Your task to perform on an android device: Open Maps and search for coffee Image 0: 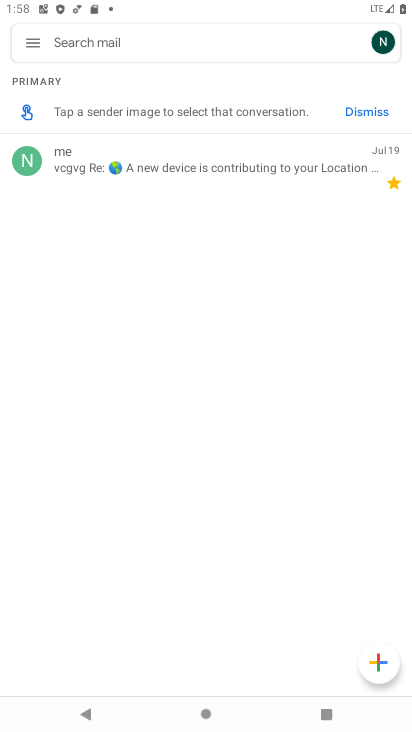
Step 0: press home button
Your task to perform on an android device: Open Maps and search for coffee Image 1: 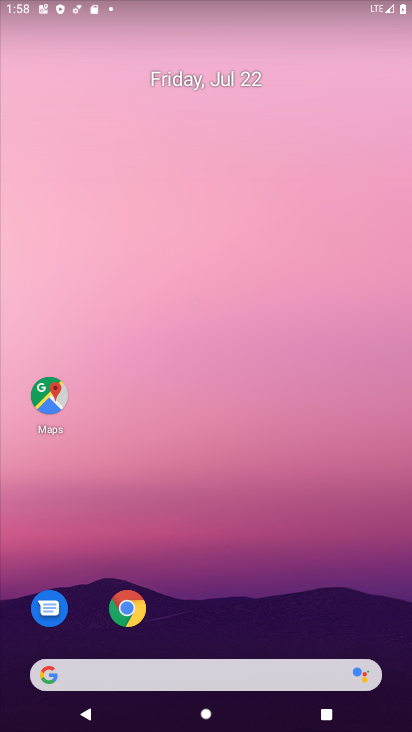
Step 1: drag from (228, 707) to (218, 197)
Your task to perform on an android device: Open Maps and search for coffee Image 2: 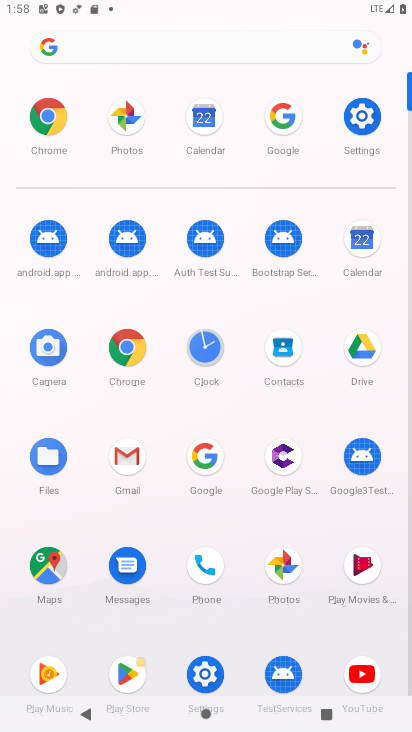
Step 2: click (45, 563)
Your task to perform on an android device: Open Maps and search for coffee Image 3: 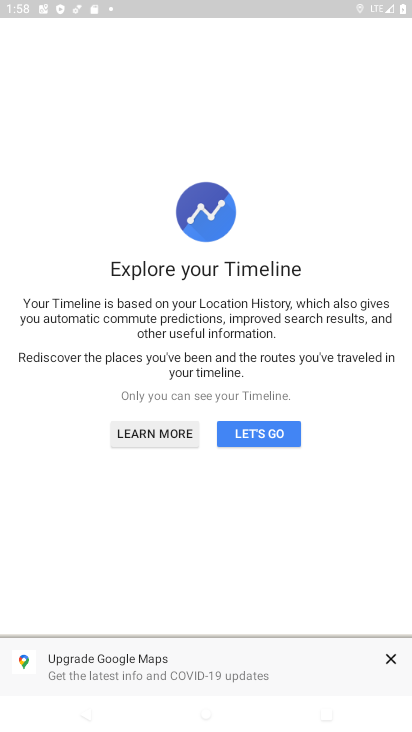
Step 3: click (394, 655)
Your task to perform on an android device: Open Maps and search for coffee Image 4: 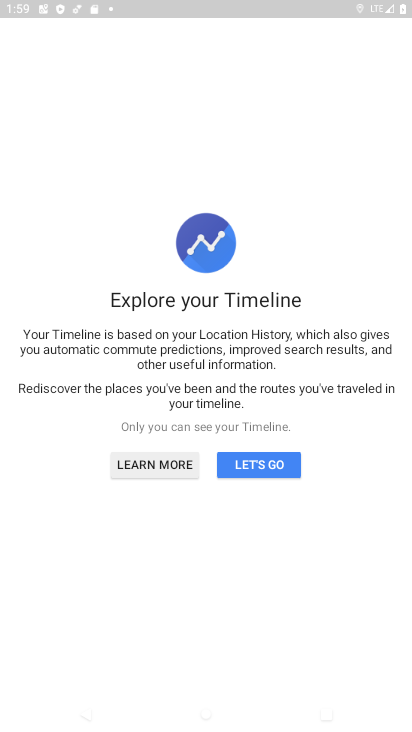
Step 4: click (262, 465)
Your task to perform on an android device: Open Maps and search for coffee Image 5: 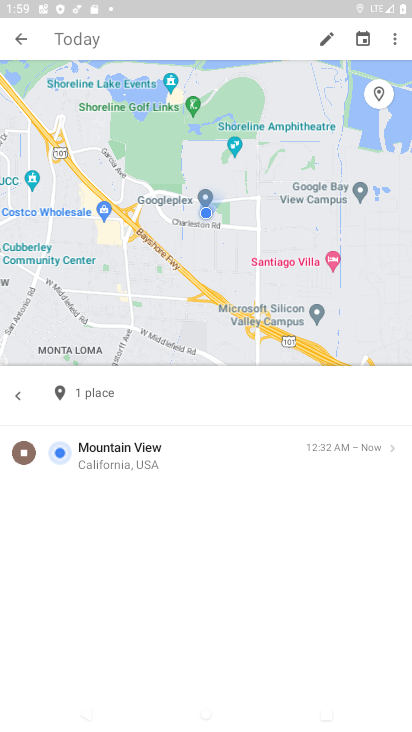
Step 5: click (21, 34)
Your task to perform on an android device: Open Maps and search for coffee Image 6: 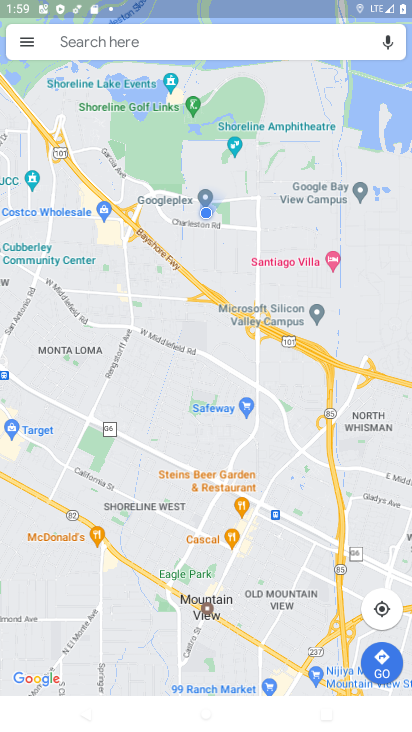
Step 6: click (234, 47)
Your task to perform on an android device: Open Maps and search for coffee Image 7: 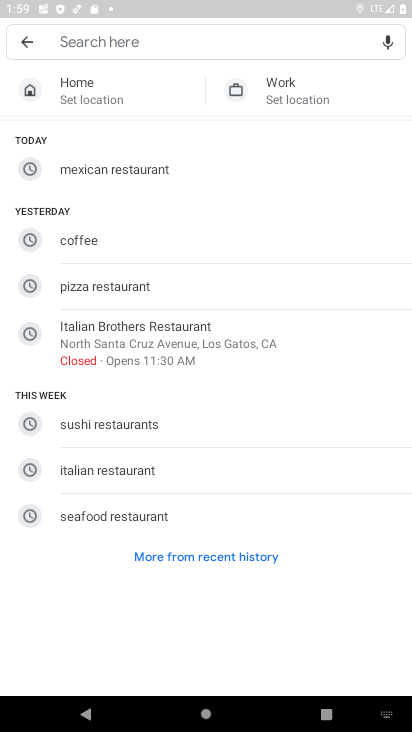
Step 7: type "coffee"
Your task to perform on an android device: Open Maps and search for coffee Image 8: 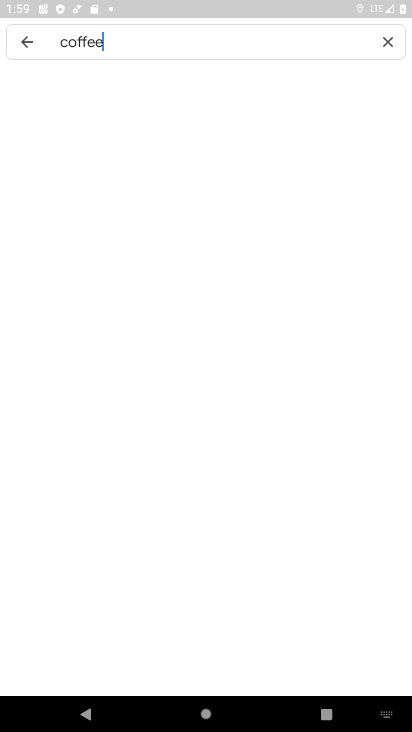
Step 8: type ""
Your task to perform on an android device: Open Maps and search for coffee Image 9: 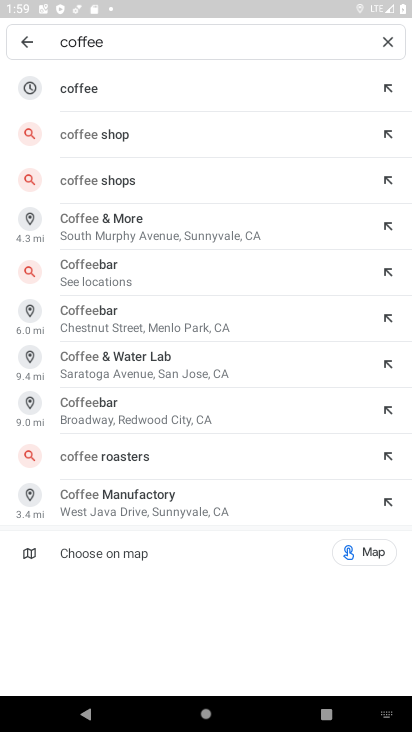
Step 9: click (85, 90)
Your task to perform on an android device: Open Maps and search for coffee Image 10: 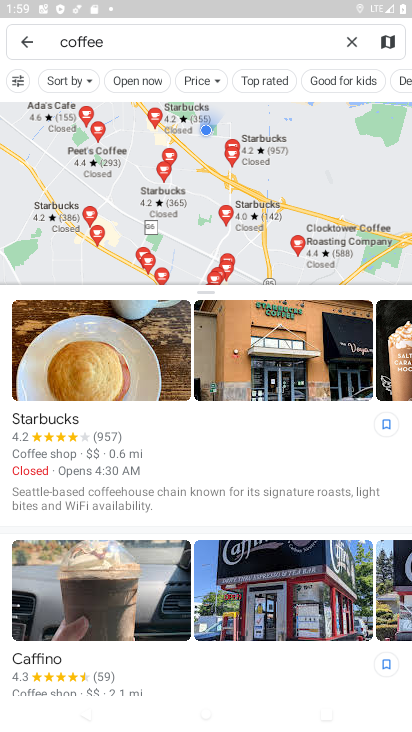
Step 10: task complete